Your task to perform on an android device: toggle show notifications on the lock screen Image 0: 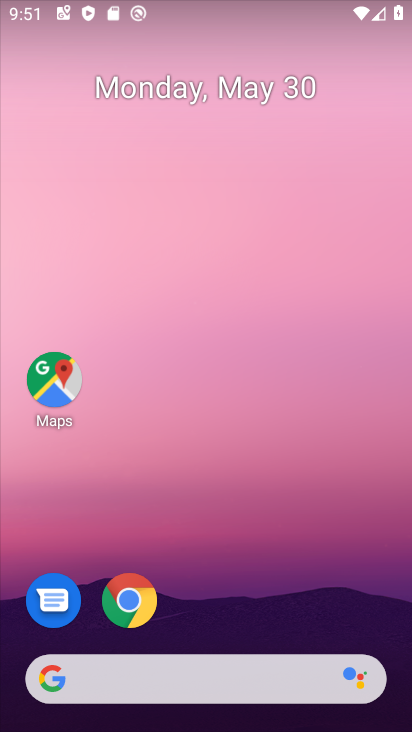
Step 0: drag from (226, 614) to (264, 224)
Your task to perform on an android device: toggle show notifications on the lock screen Image 1: 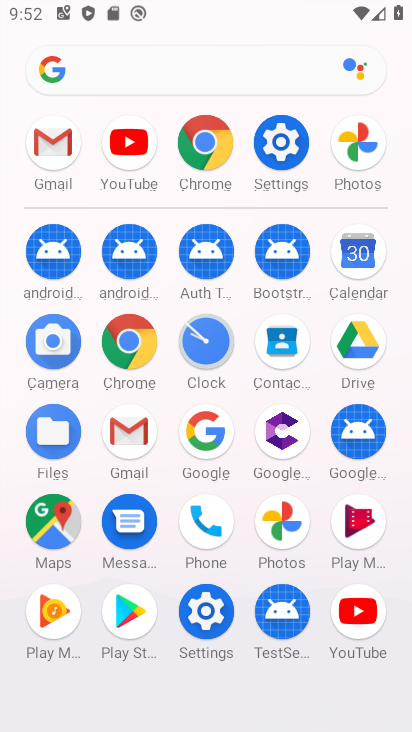
Step 1: click (272, 149)
Your task to perform on an android device: toggle show notifications on the lock screen Image 2: 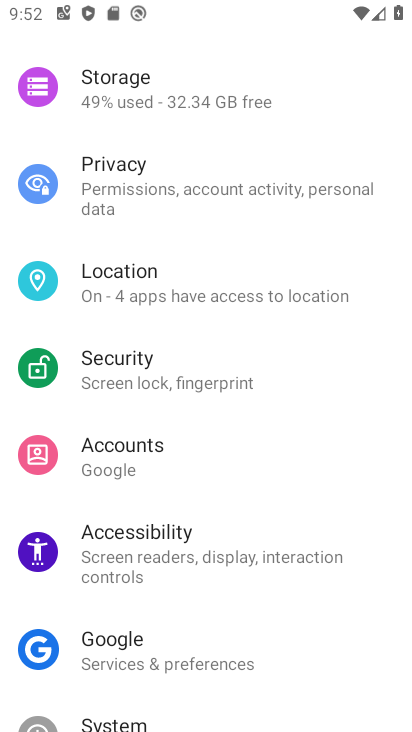
Step 2: drag from (274, 137) to (263, 584)
Your task to perform on an android device: toggle show notifications on the lock screen Image 3: 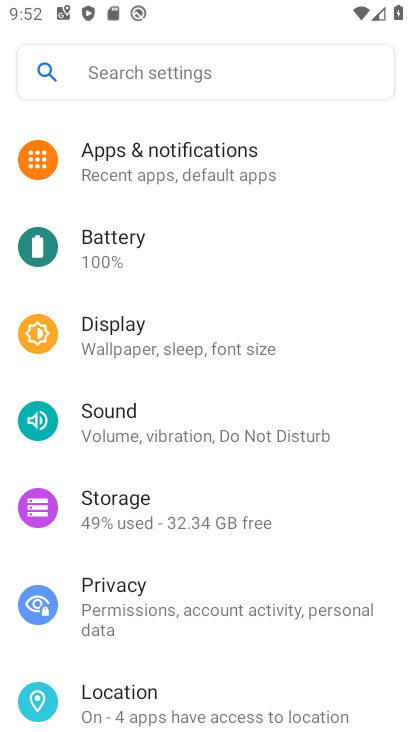
Step 3: click (177, 170)
Your task to perform on an android device: toggle show notifications on the lock screen Image 4: 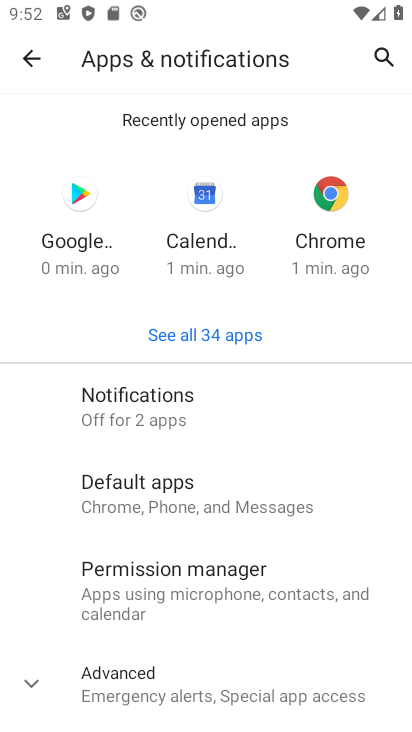
Step 4: drag from (31, 607) to (55, 292)
Your task to perform on an android device: toggle show notifications on the lock screen Image 5: 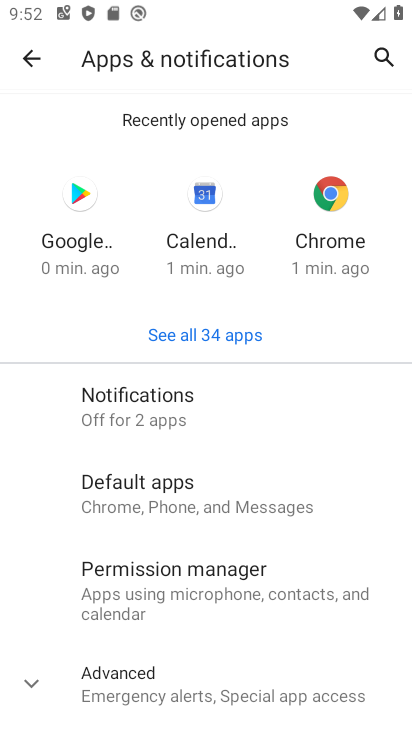
Step 5: drag from (219, 647) to (213, 245)
Your task to perform on an android device: toggle show notifications on the lock screen Image 6: 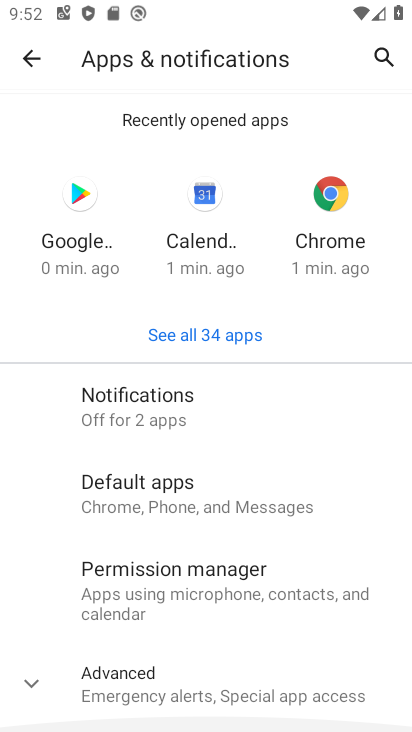
Step 6: drag from (288, 438) to (275, 54)
Your task to perform on an android device: toggle show notifications on the lock screen Image 7: 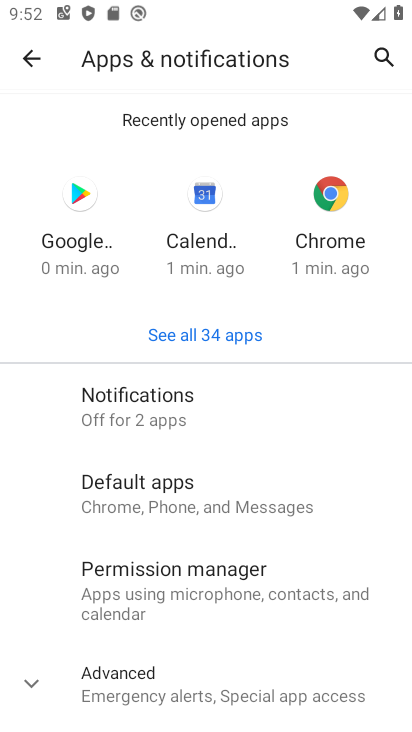
Step 7: click (207, 409)
Your task to perform on an android device: toggle show notifications on the lock screen Image 8: 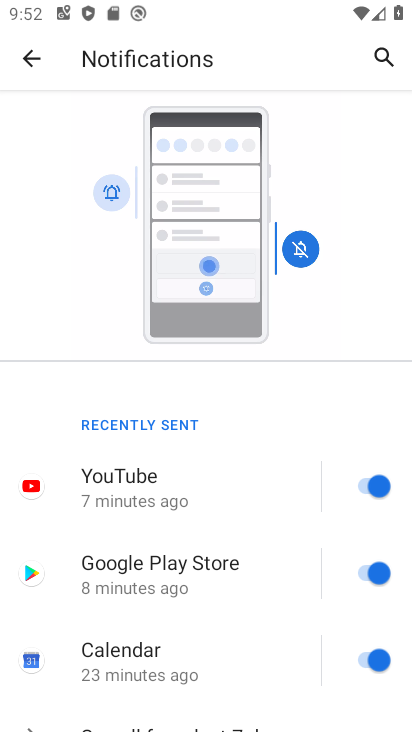
Step 8: drag from (221, 511) to (244, 97)
Your task to perform on an android device: toggle show notifications on the lock screen Image 9: 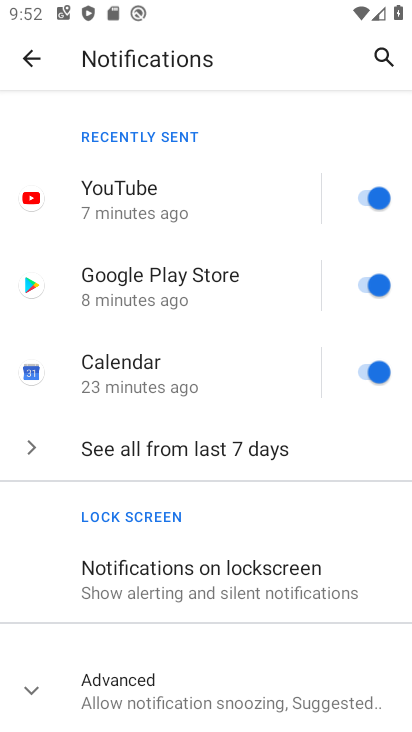
Step 9: click (123, 567)
Your task to perform on an android device: toggle show notifications on the lock screen Image 10: 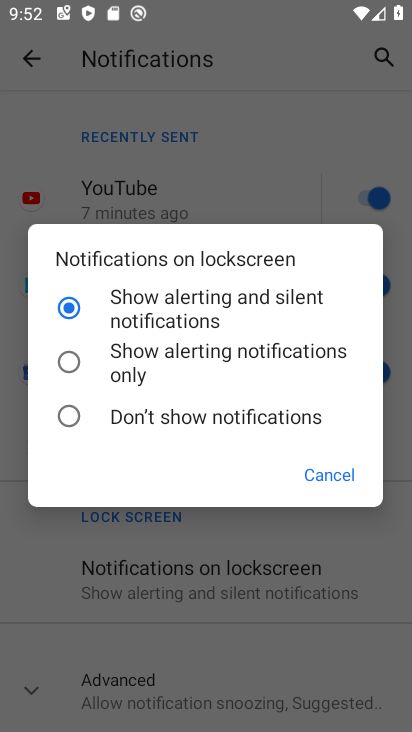
Step 10: click (113, 358)
Your task to perform on an android device: toggle show notifications on the lock screen Image 11: 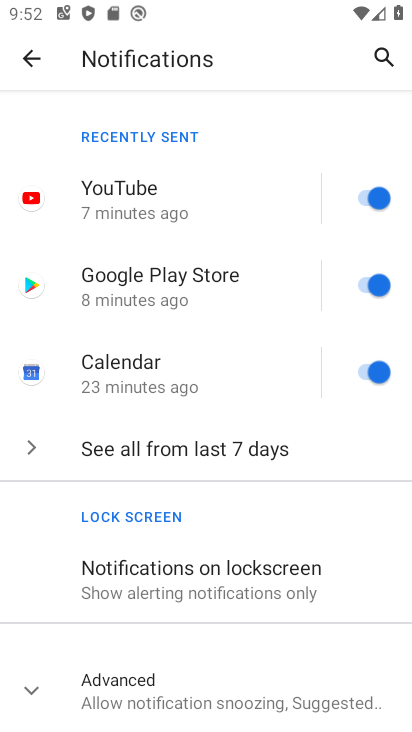
Step 11: task complete